Your task to perform on an android device: find snoozed emails in the gmail app Image 0: 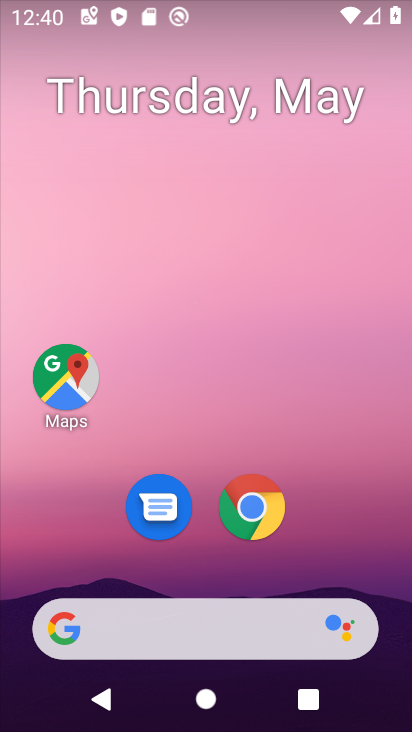
Step 0: drag from (222, 574) to (225, 54)
Your task to perform on an android device: find snoozed emails in the gmail app Image 1: 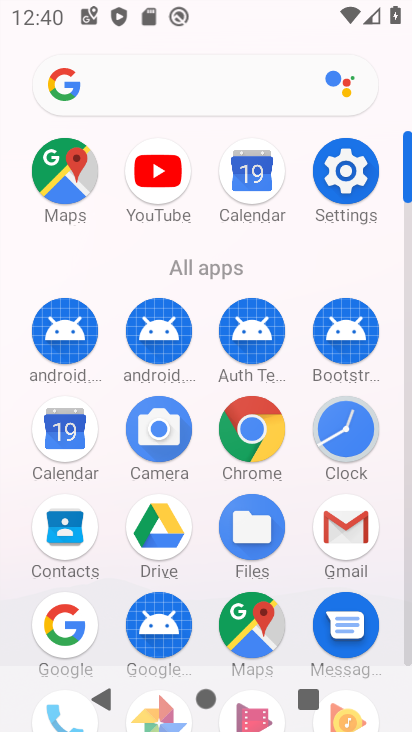
Step 1: click (355, 530)
Your task to perform on an android device: find snoozed emails in the gmail app Image 2: 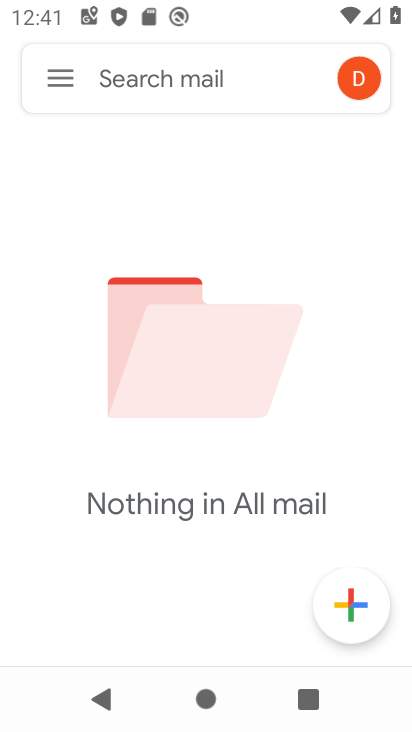
Step 2: click (54, 78)
Your task to perform on an android device: find snoozed emails in the gmail app Image 3: 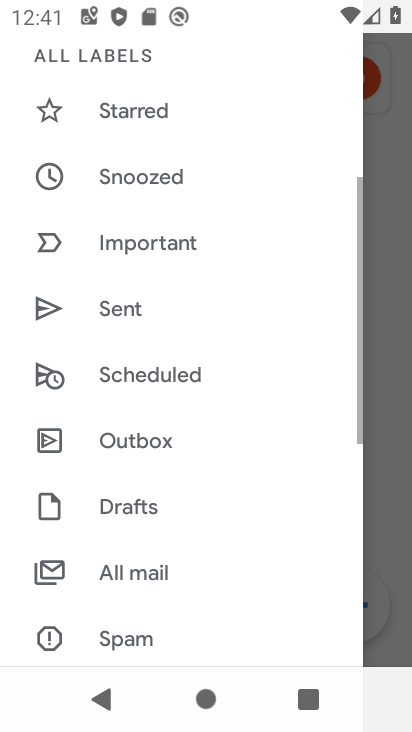
Step 3: click (140, 178)
Your task to perform on an android device: find snoozed emails in the gmail app Image 4: 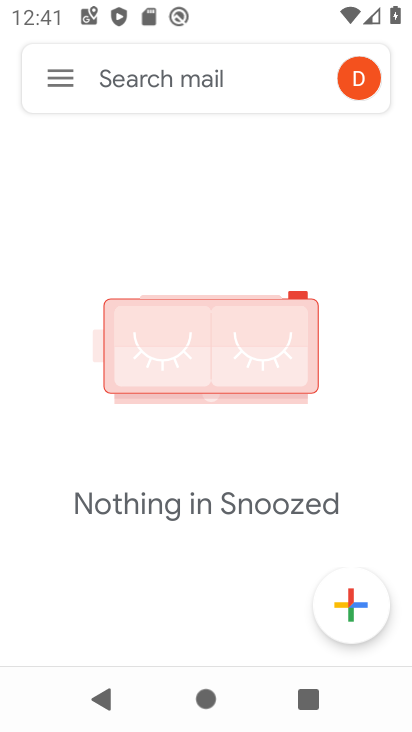
Step 4: task complete